Your task to perform on an android device: Open Reddit.com Image 0: 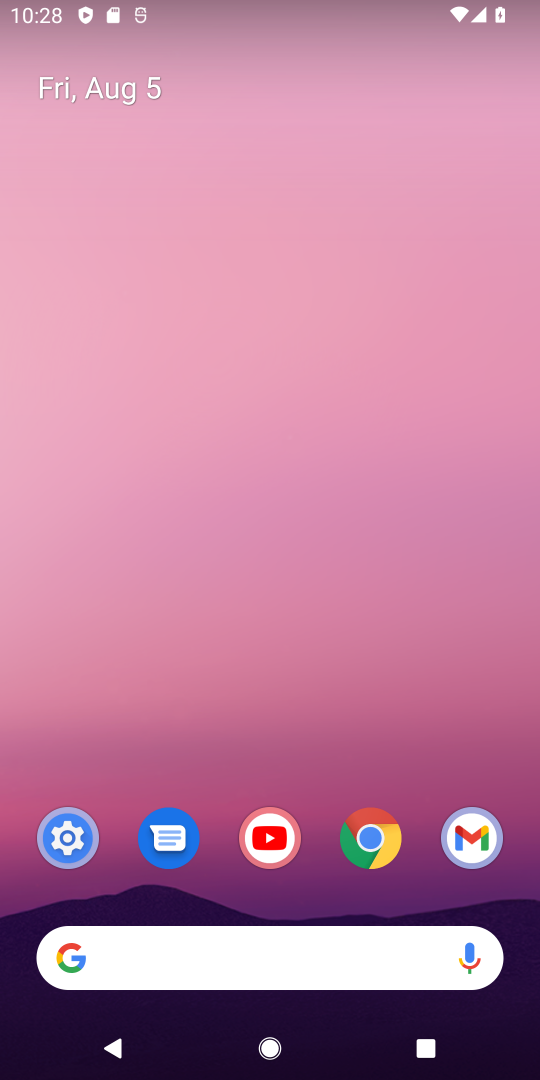
Step 0: click (250, 953)
Your task to perform on an android device: Open Reddit.com Image 1: 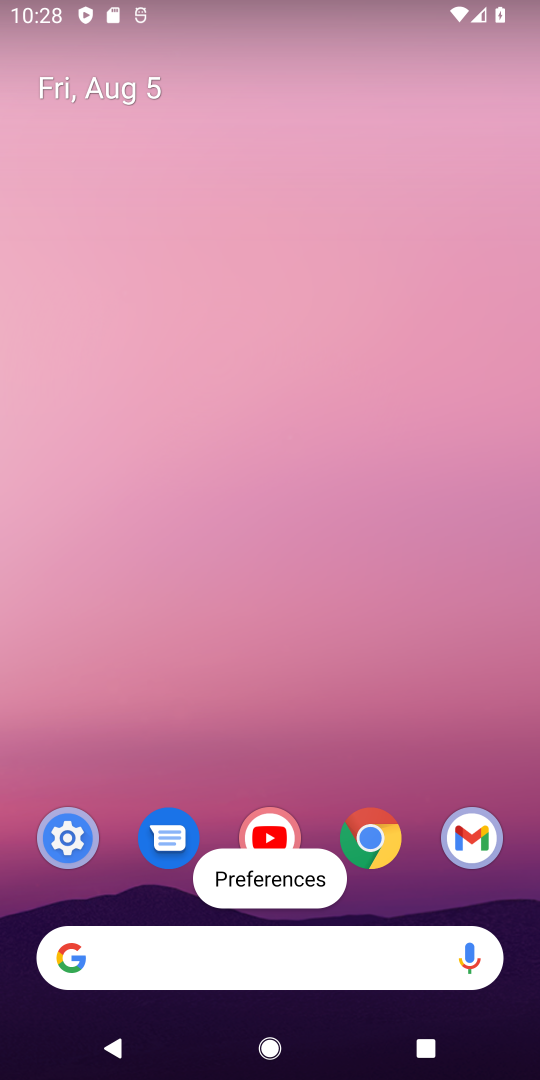
Step 1: click (343, 972)
Your task to perform on an android device: Open Reddit.com Image 2: 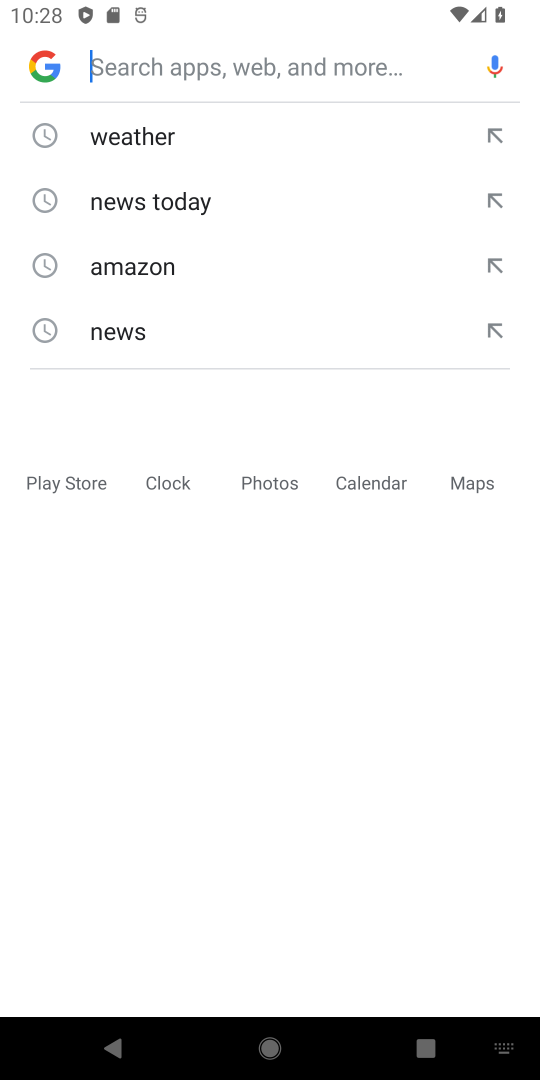
Step 2: type "Reddit.com"
Your task to perform on an android device: Open Reddit.com Image 3: 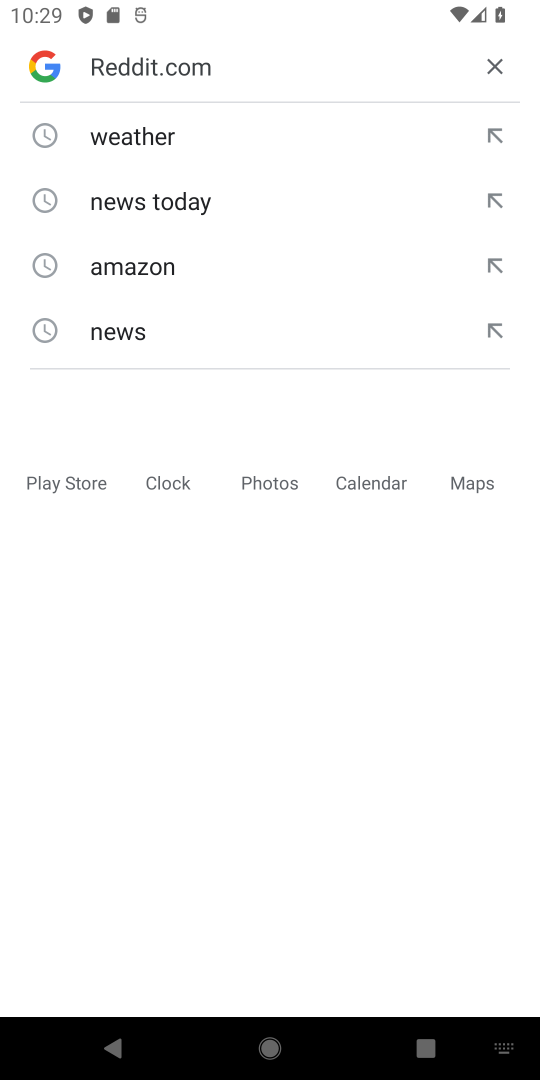
Step 3: type ""
Your task to perform on an android device: Open Reddit.com Image 4: 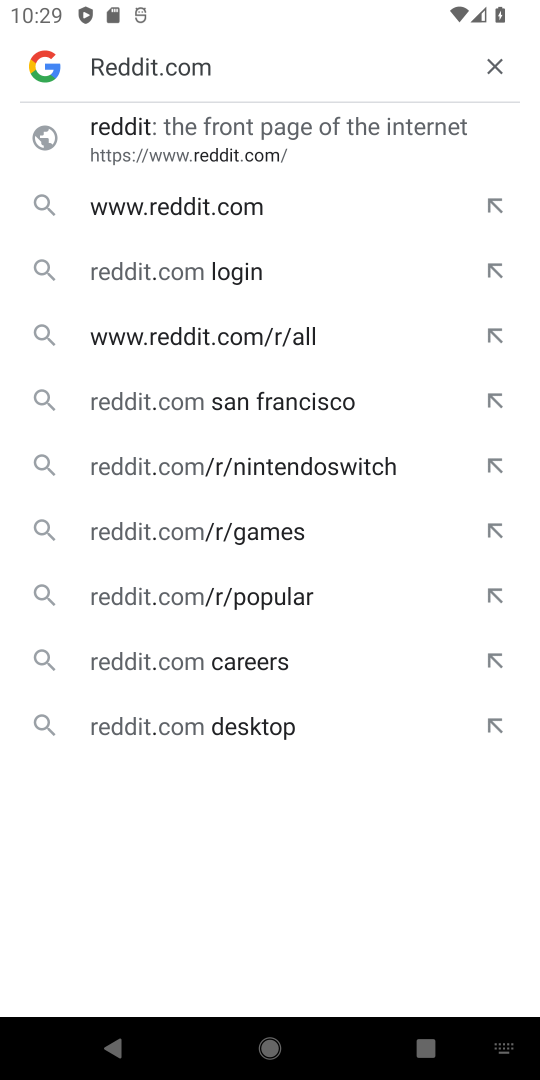
Step 4: task complete